Your task to perform on an android device: find which apps use the phone's location Image 0: 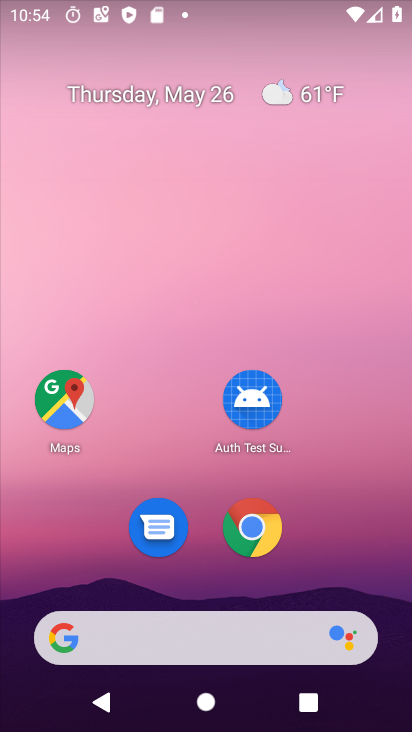
Step 0: drag from (353, 517) to (0, 235)
Your task to perform on an android device: find which apps use the phone's location Image 1: 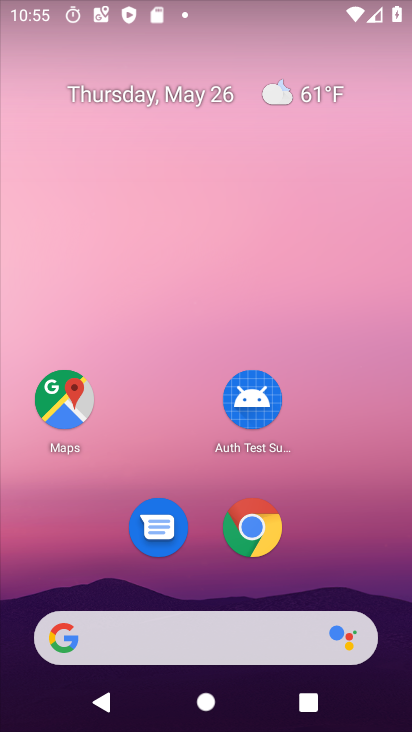
Step 1: drag from (363, 520) to (341, 1)
Your task to perform on an android device: find which apps use the phone's location Image 2: 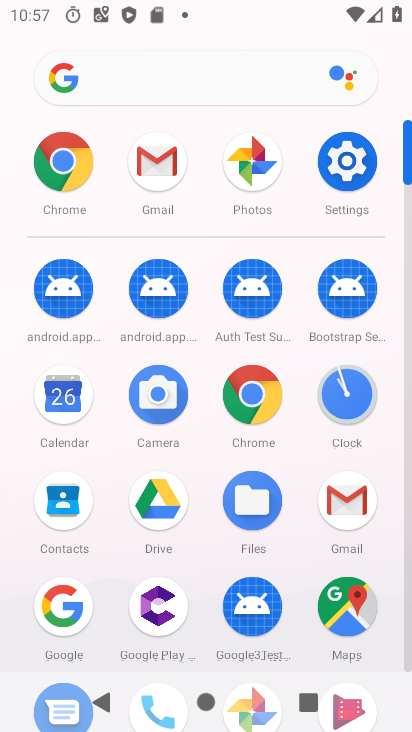
Step 2: click (352, 141)
Your task to perform on an android device: find which apps use the phone's location Image 3: 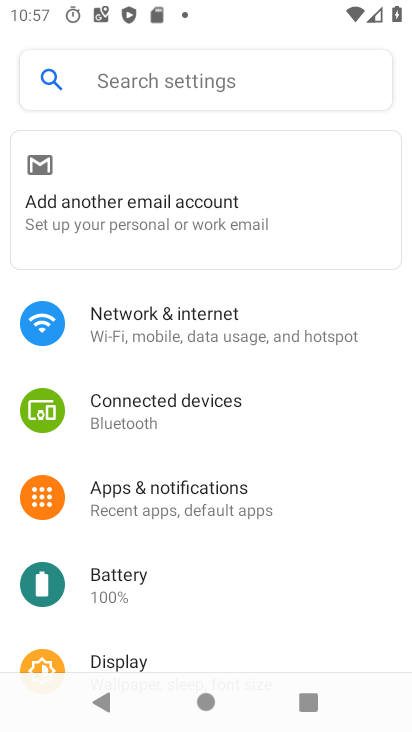
Step 3: drag from (217, 553) to (246, 308)
Your task to perform on an android device: find which apps use the phone's location Image 4: 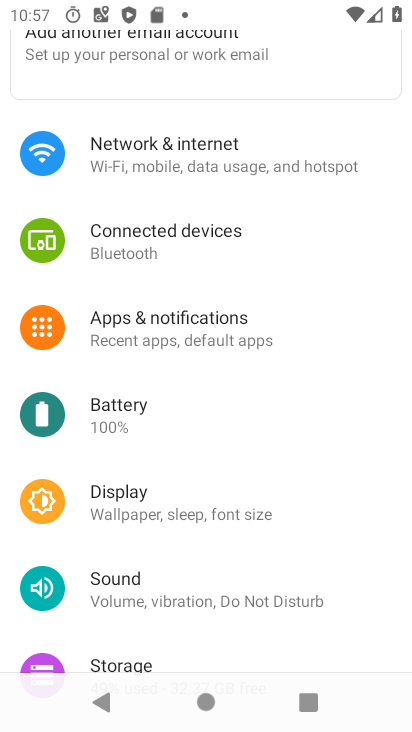
Step 4: drag from (229, 616) to (238, 216)
Your task to perform on an android device: find which apps use the phone's location Image 5: 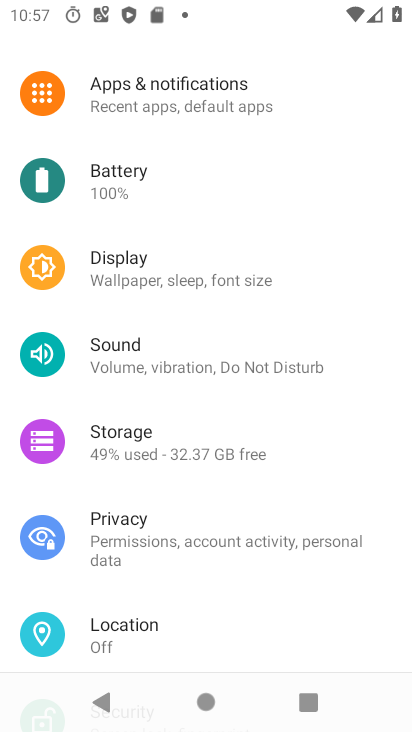
Step 5: drag from (157, 638) to (198, 294)
Your task to perform on an android device: find which apps use the phone's location Image 6: 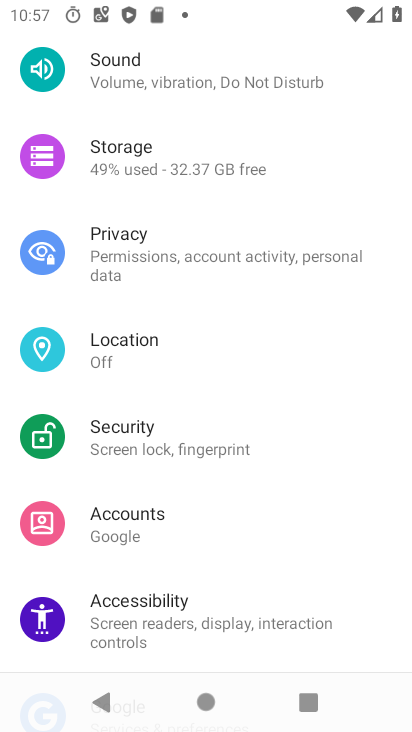
Step 6: click (157, 331)
Your task to perform on an android device: find which apps use the phone's location Image 7: 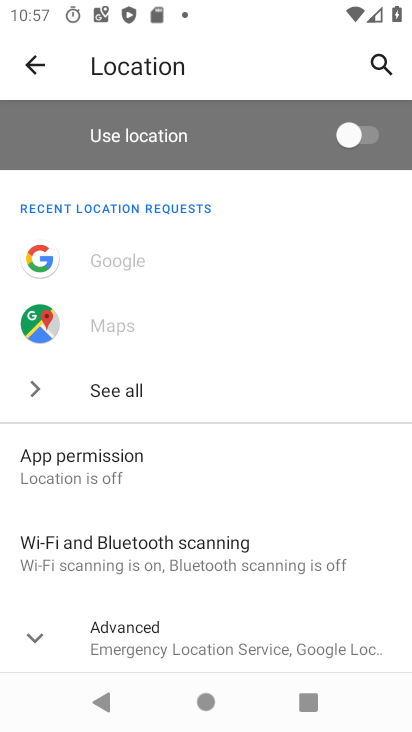
Step 7: drag from (208, 610) to (201, 350)
Your task to perform on an android device: find which apps use the phone's location Image 8: 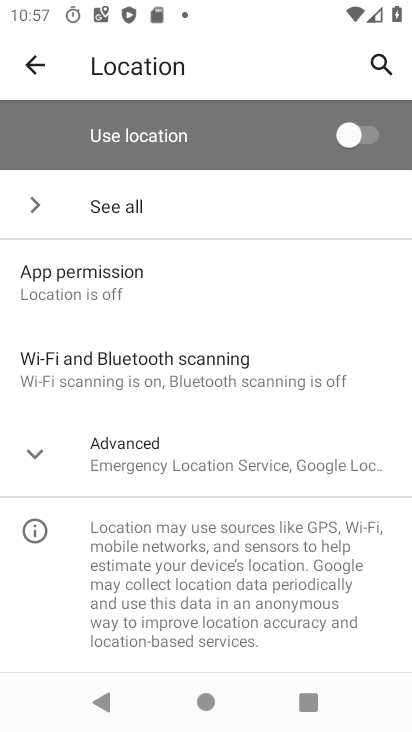
Step 8: click (72, 278)
Your task to perform on an android device: find which apps use the phone's location Image 9: 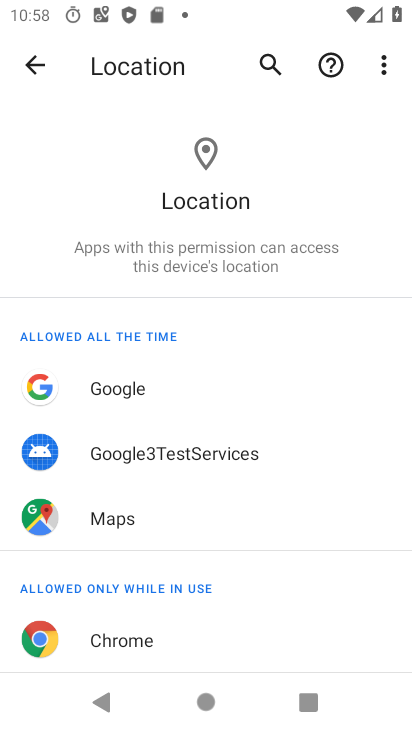
Step 9: task complete